Your task to perform on an android device: Search for usb-b on walmart, select the first entry, and add it to the cart. Image 0: 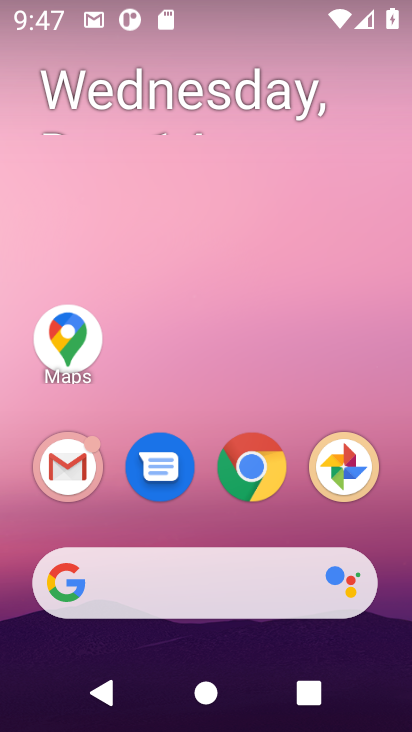
Step 0: task complete